Your task to perform on an android device: check android version Image 0: 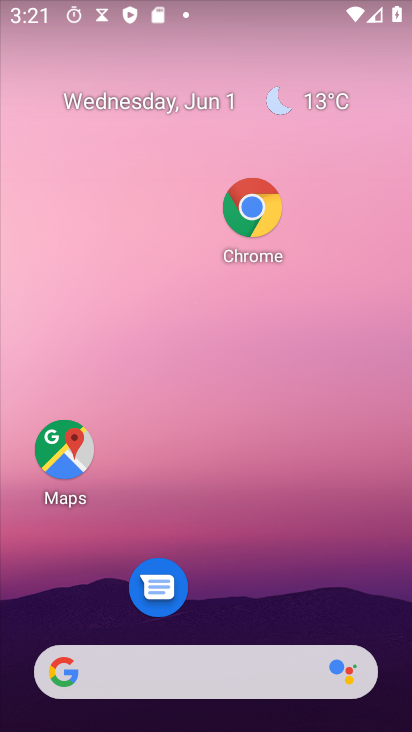
Step 0: drag from (248, 650) to (165, 240)
Your task to perform on an android device: check android version Image 1: 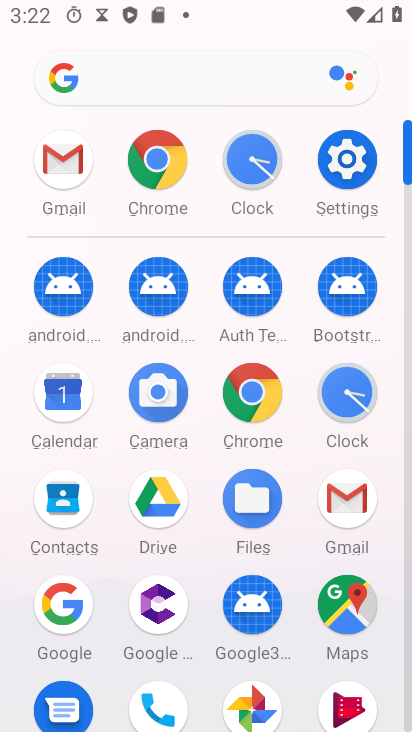
Step 1: click (346, 159)
Your task to perform on an android device: check android version Image 2: 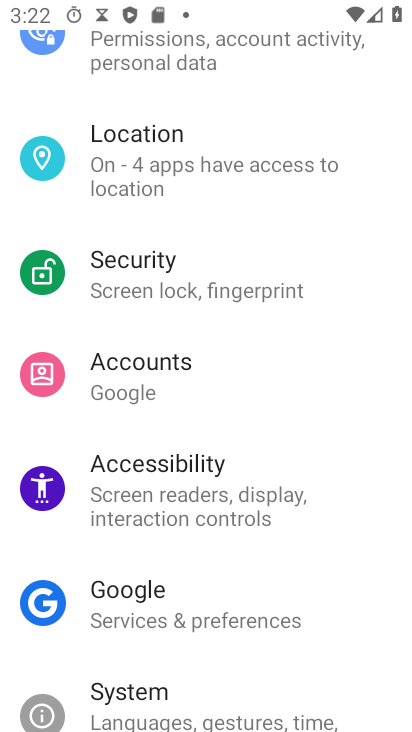
Step 2: drag from (294, 528) to (225, 163)
Your task to perform on an android device: check android version Image 3: 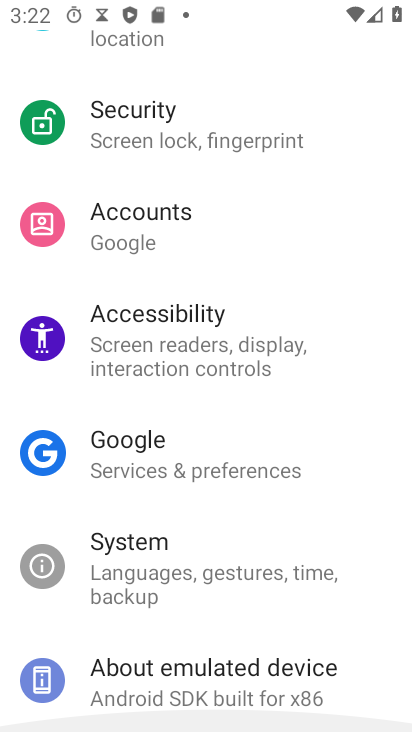
Step 3: drag from (240, 423) to (230, 195)
Your task to perform on an android device: check android version Image 4: 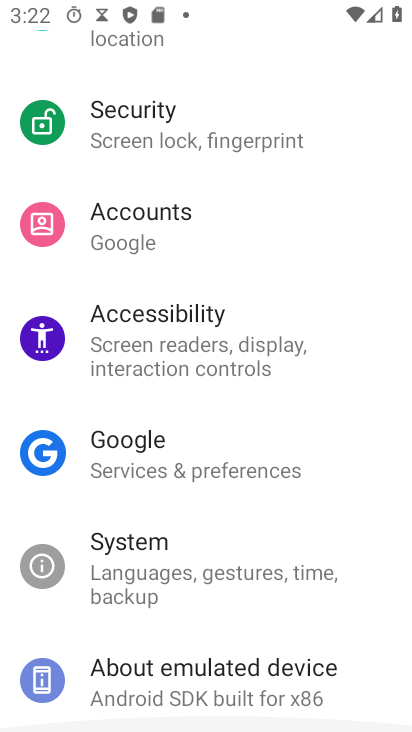
Step 4: drag from (261, 451) to (260, 182)
Your task to perform on an android device: check android version Image 5: 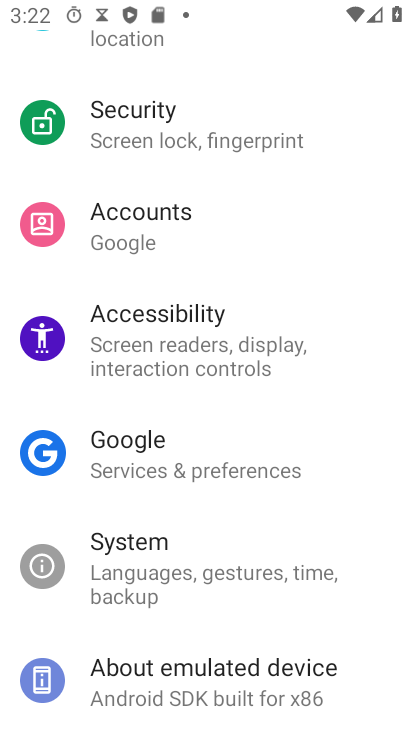
Step 5: click (188, 693)
Your task to perform on an android device: check android version Image 6: 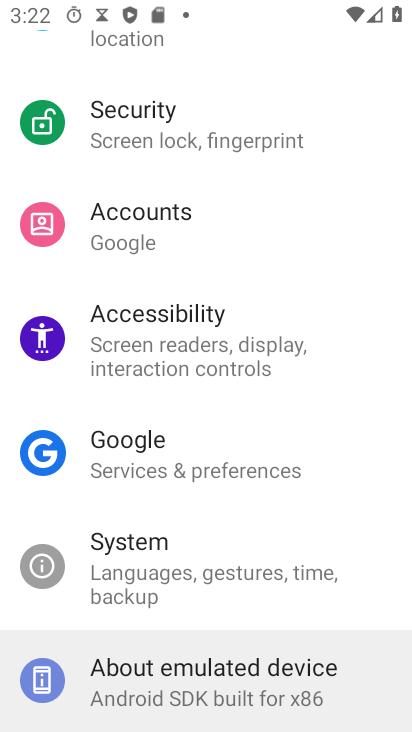
Step 6: click (187, 693)
Your task to perform on an android device: check android version Image 7: 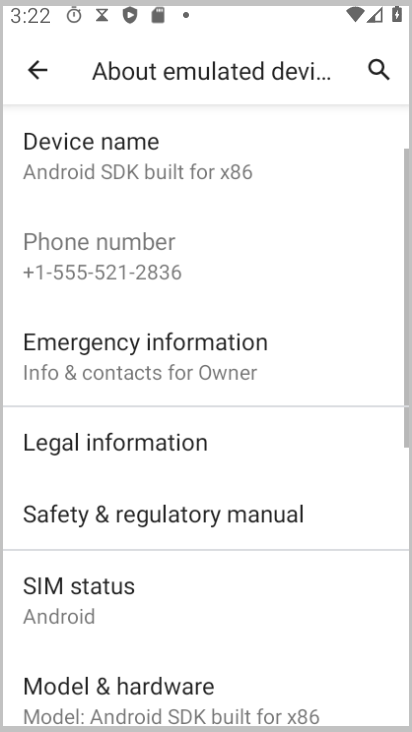
Step 7: click (181, 693)
Your task to perform on an android device: check android version Image 8: 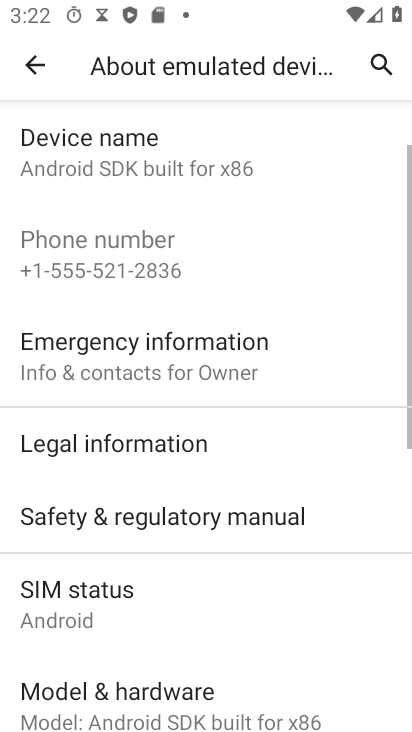
Step 8: click (181, 693)
Your task to perform on an android device: check android version Image 9: 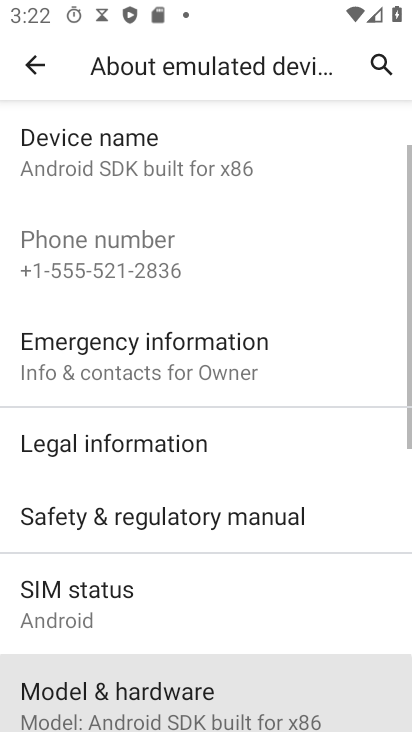
Step 9: click (181, 693)
Your task to perform on an android device: check android version Image 10: 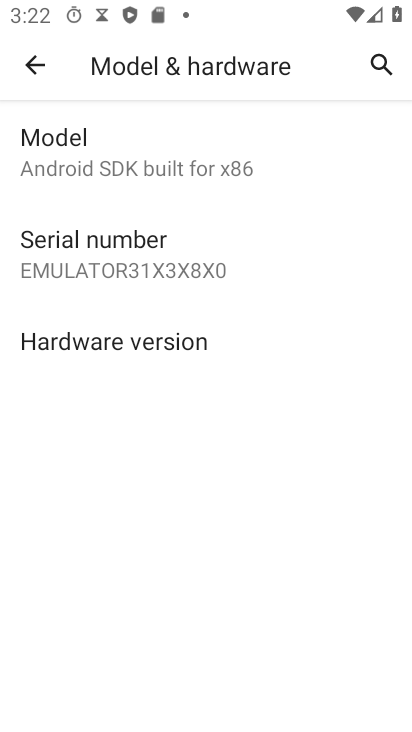
Step 10: click (28, 60)
Your task to perform on an android device: check android version Image 11: 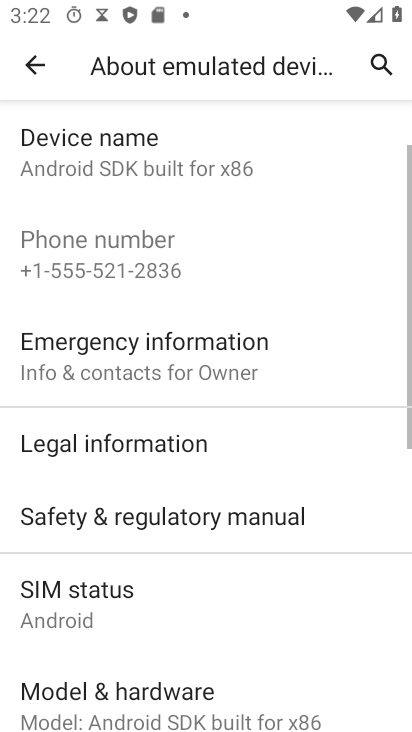
Step 11: click (36, 154)
Your task to perform on an android device: check android version Image 12: 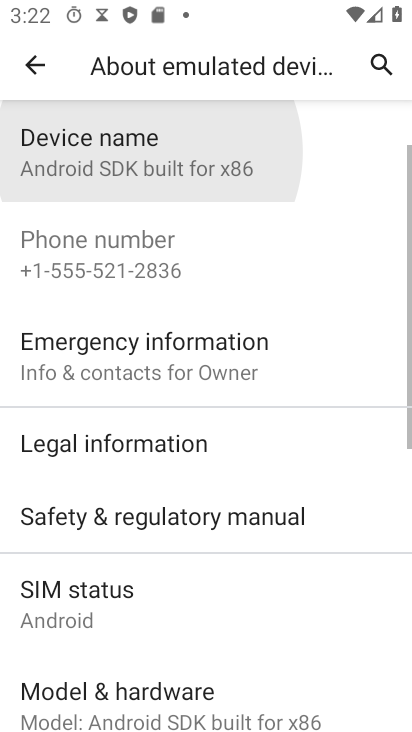
Step 12: drag from (133, 424) to (127, 171)
Your task to perform on an android device: check android version Image 13: 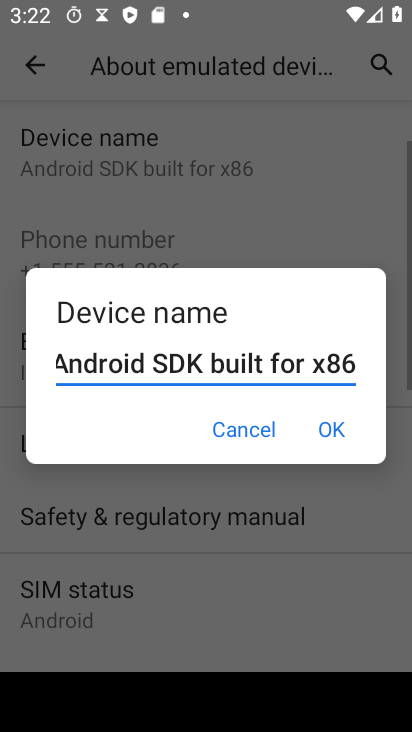
Step 13: drag from (158, 351) to (133, 181)
Your task to perform on an android device: check android version Image 14: 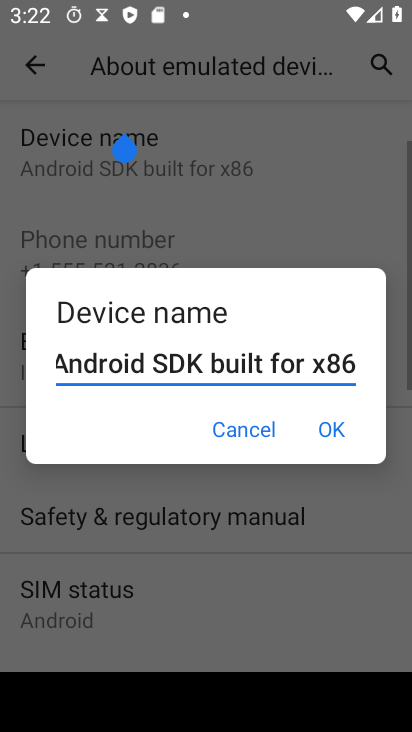
Step 14: click (235, 428)
Your task to perform on an android device: check android version Image 15: 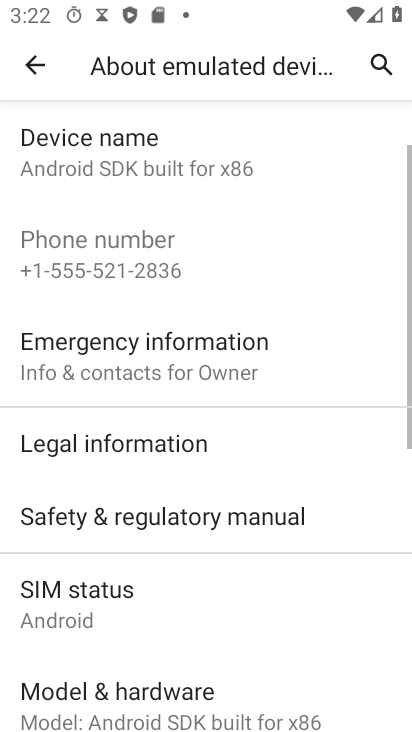
Step 15: task complete